Your task to perform on an android device: Open the stopwatch Image 0: 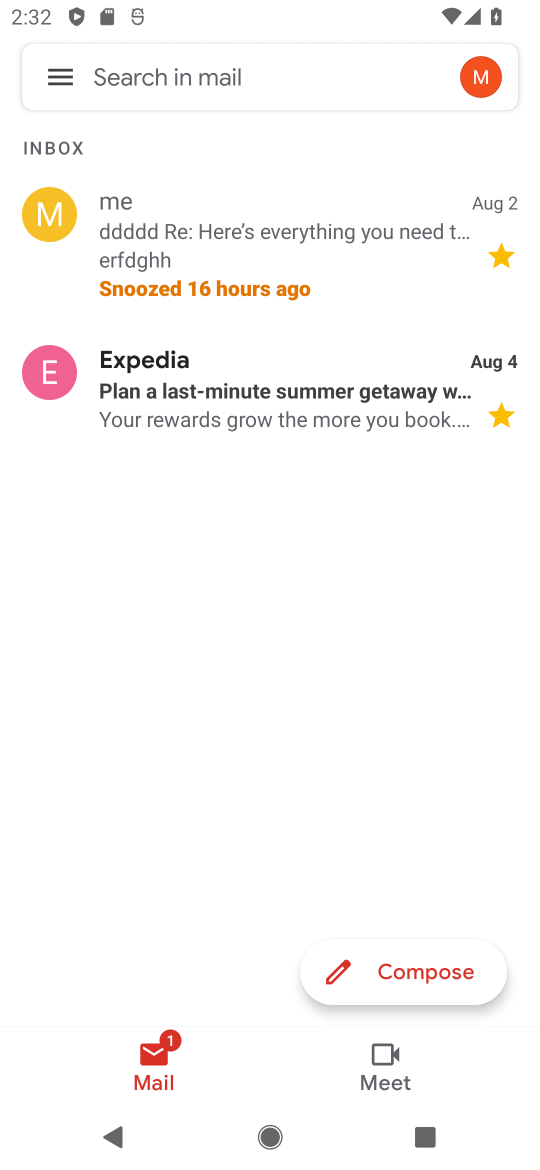
Step 0: task complete